Your task to perform on an android device: change text size in settings app Image 0: 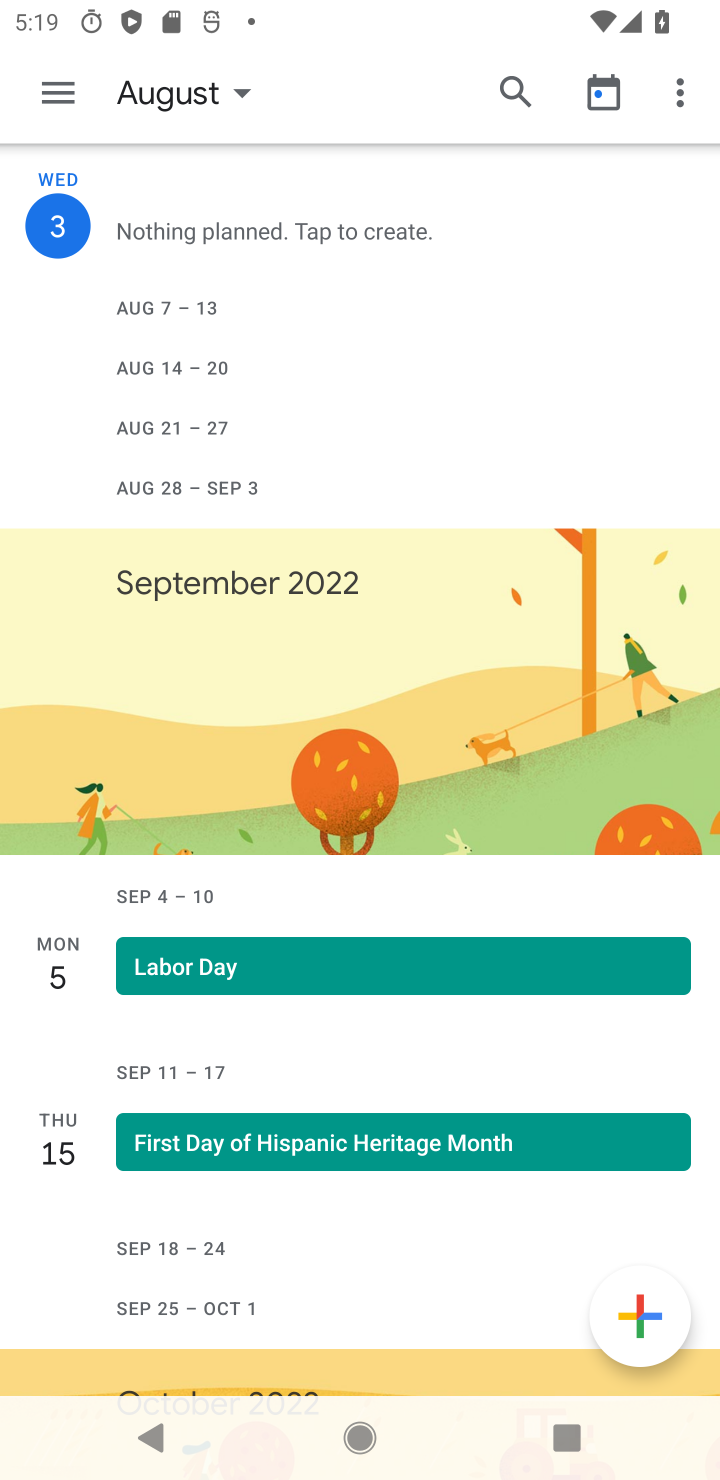
Step 0: press back button
Your task to perform on an android device: change text size in settings app Image 1: 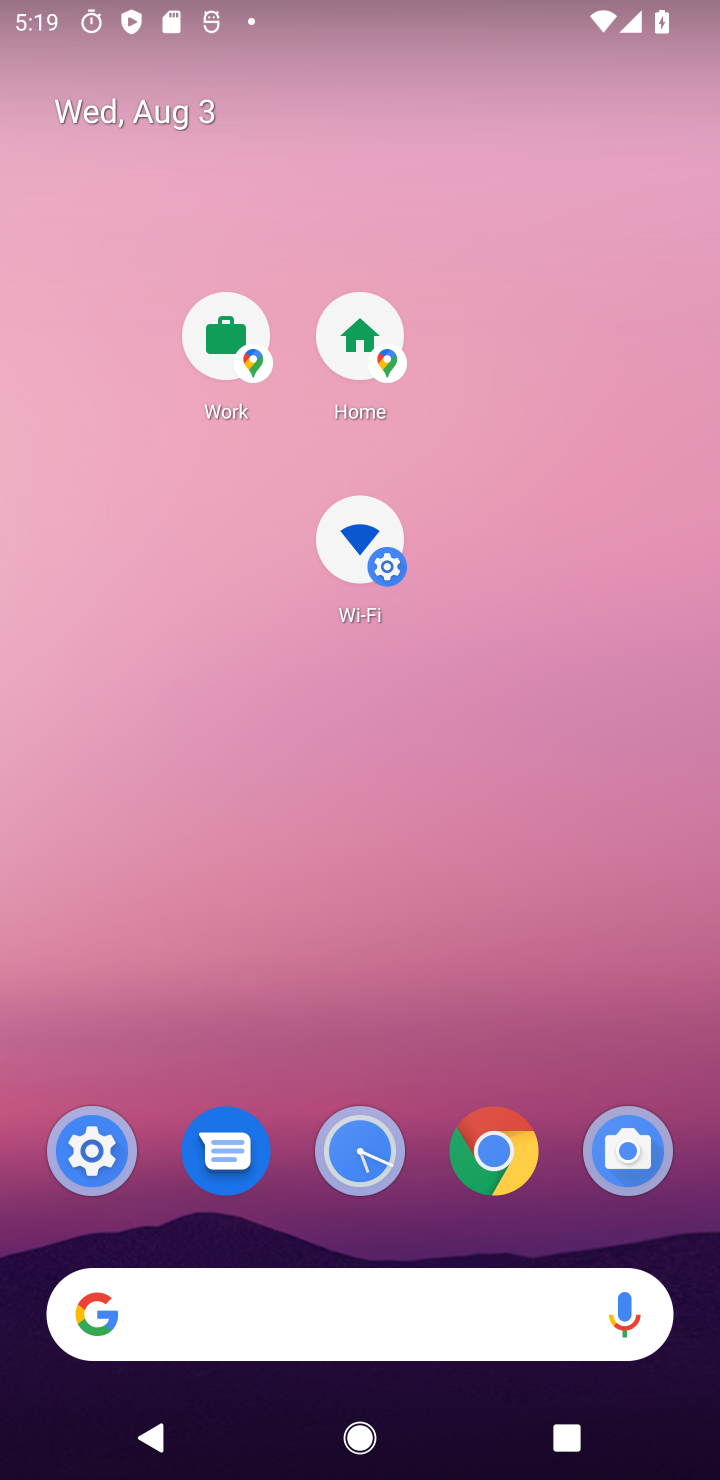
Step 1: drag from (437, 1161) to (250, 378)
Your task to perform on an android device: change text size in settings app Image 2: 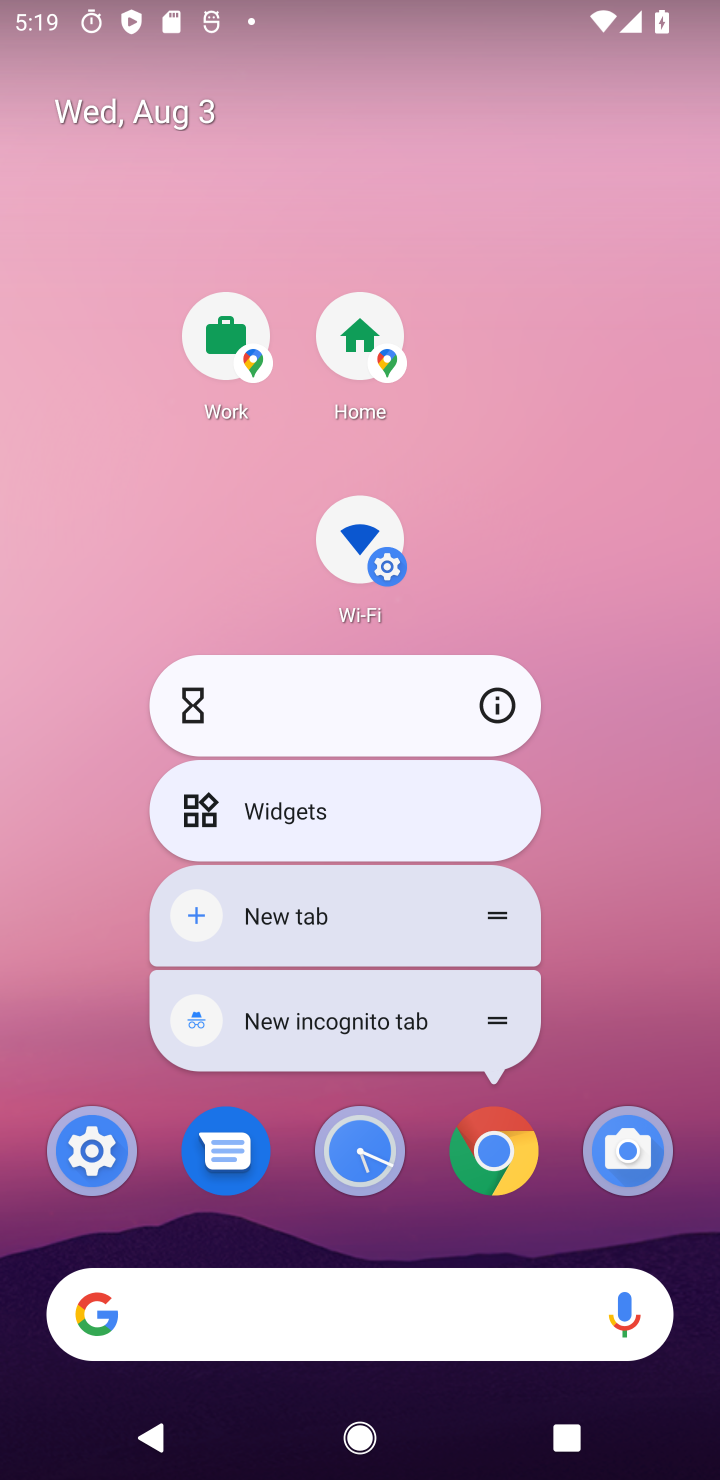
Step 2: click (634, 606)
Your task to perform on an android device: change text size in settings app Image 3: 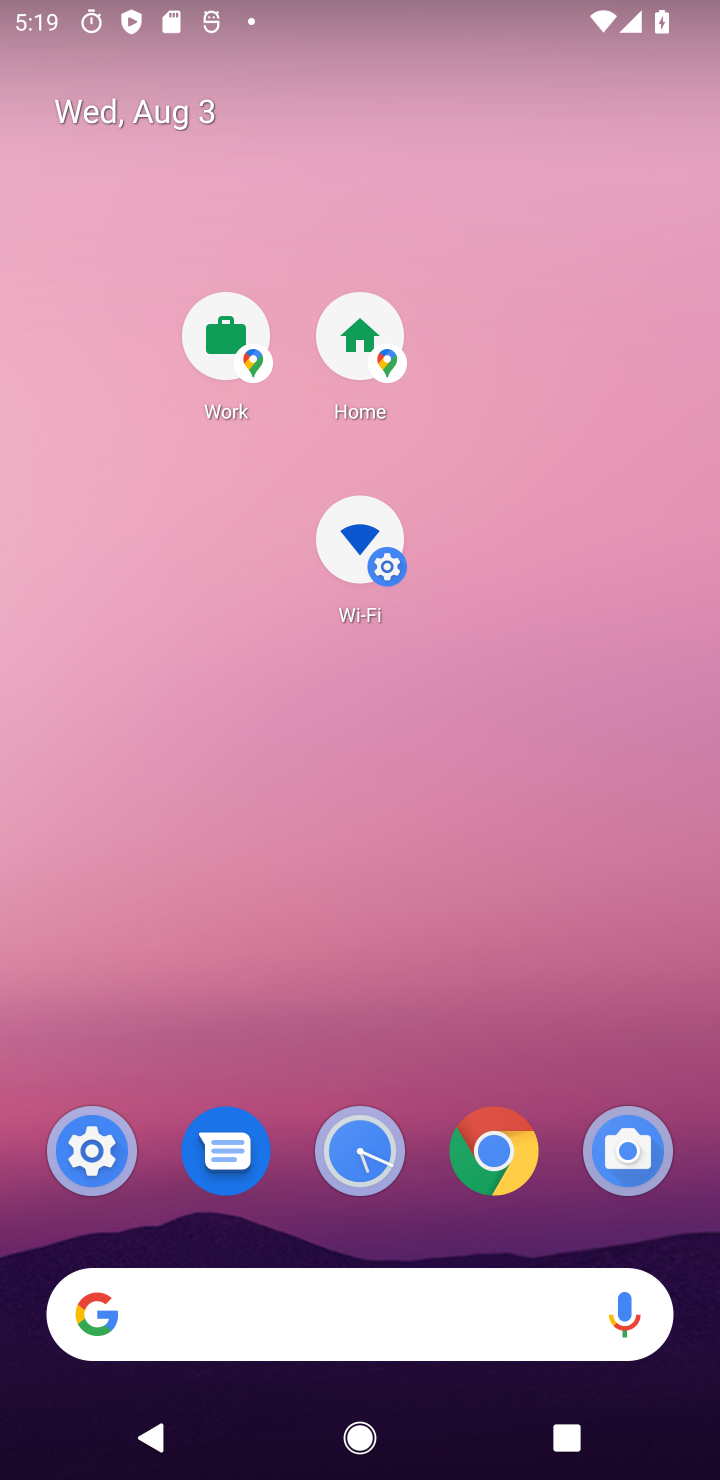
Step 3: drag from (501, 955) to (392, 484)
Your task to perform on an android device: change text size in settings app Image 4: 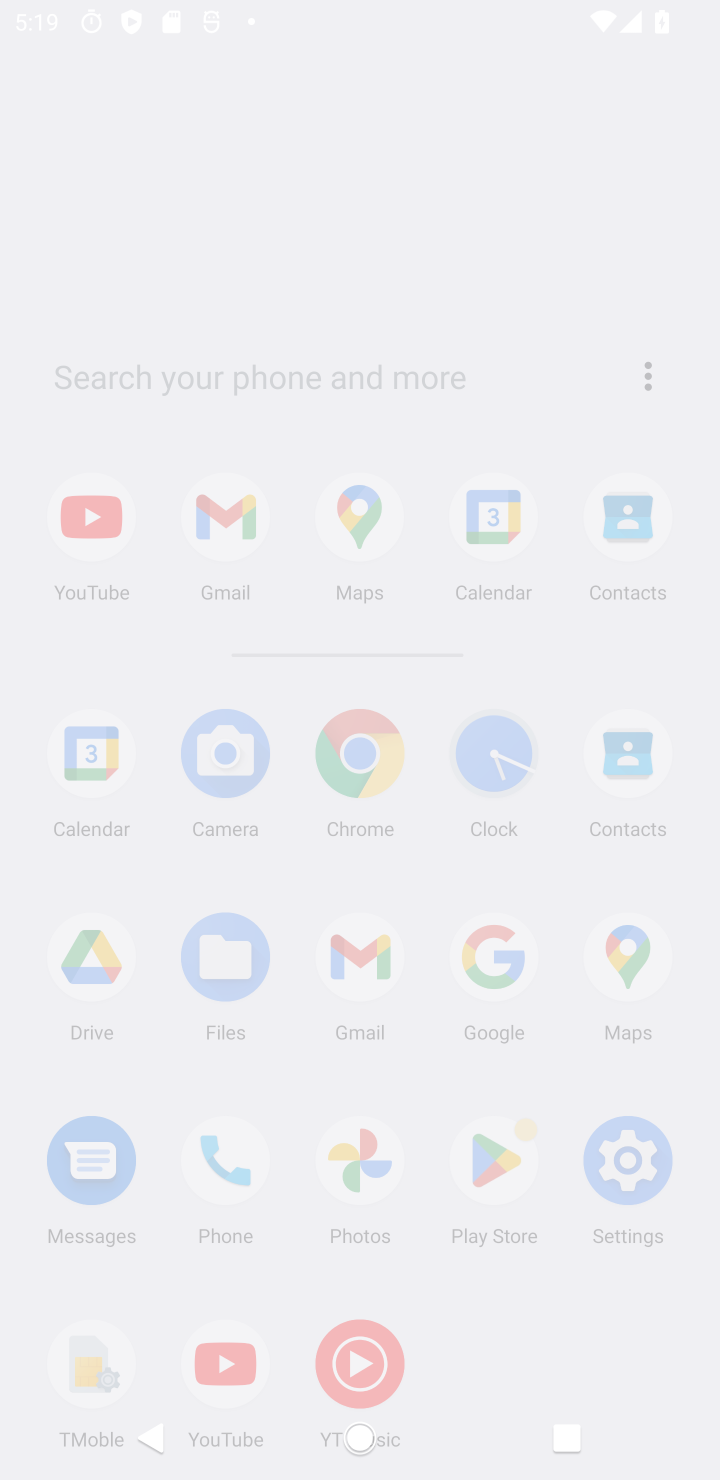
Step 4: drag from (429, 965) to (389, 713)
Your task to perform on an android device: change text size in settings app Image 5: 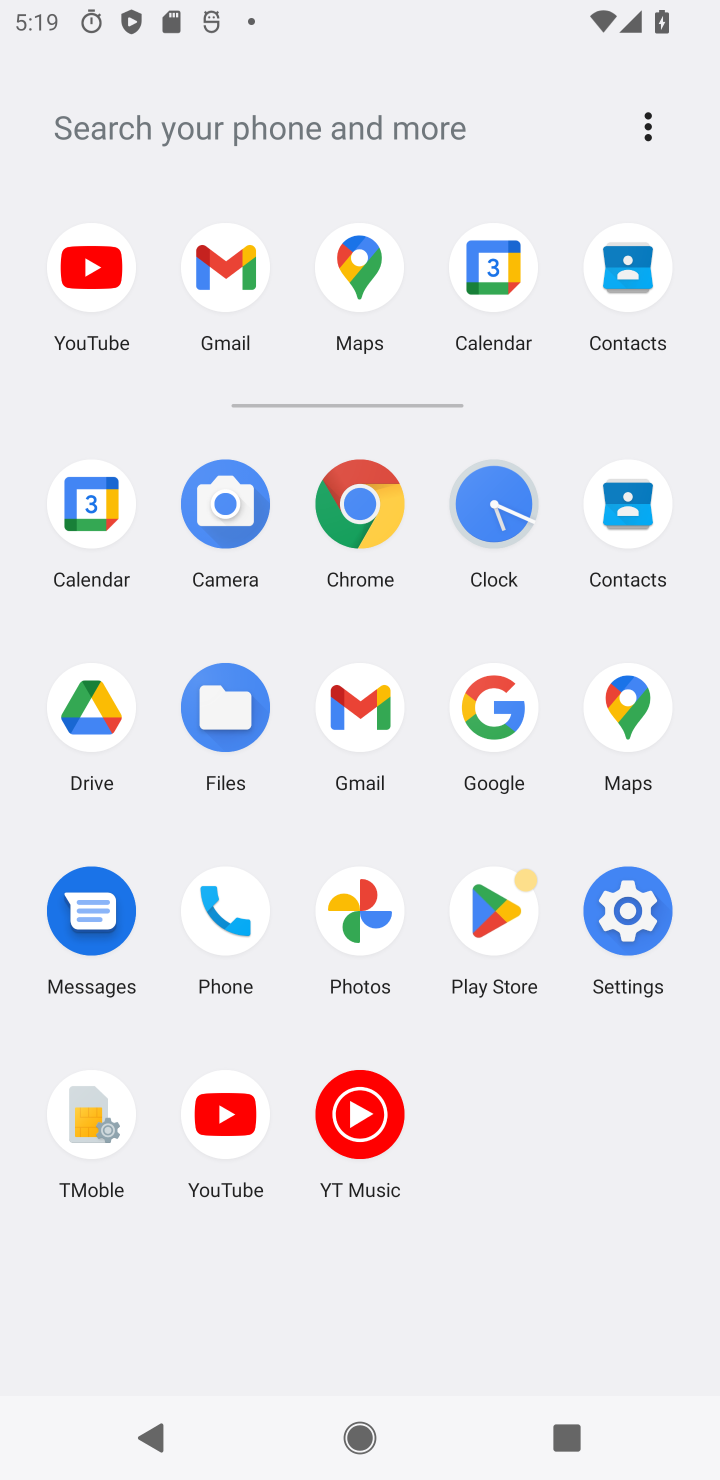
Step 5: click (603, 907)
Your task to perform on an android device: change text size in settings app Image 6: 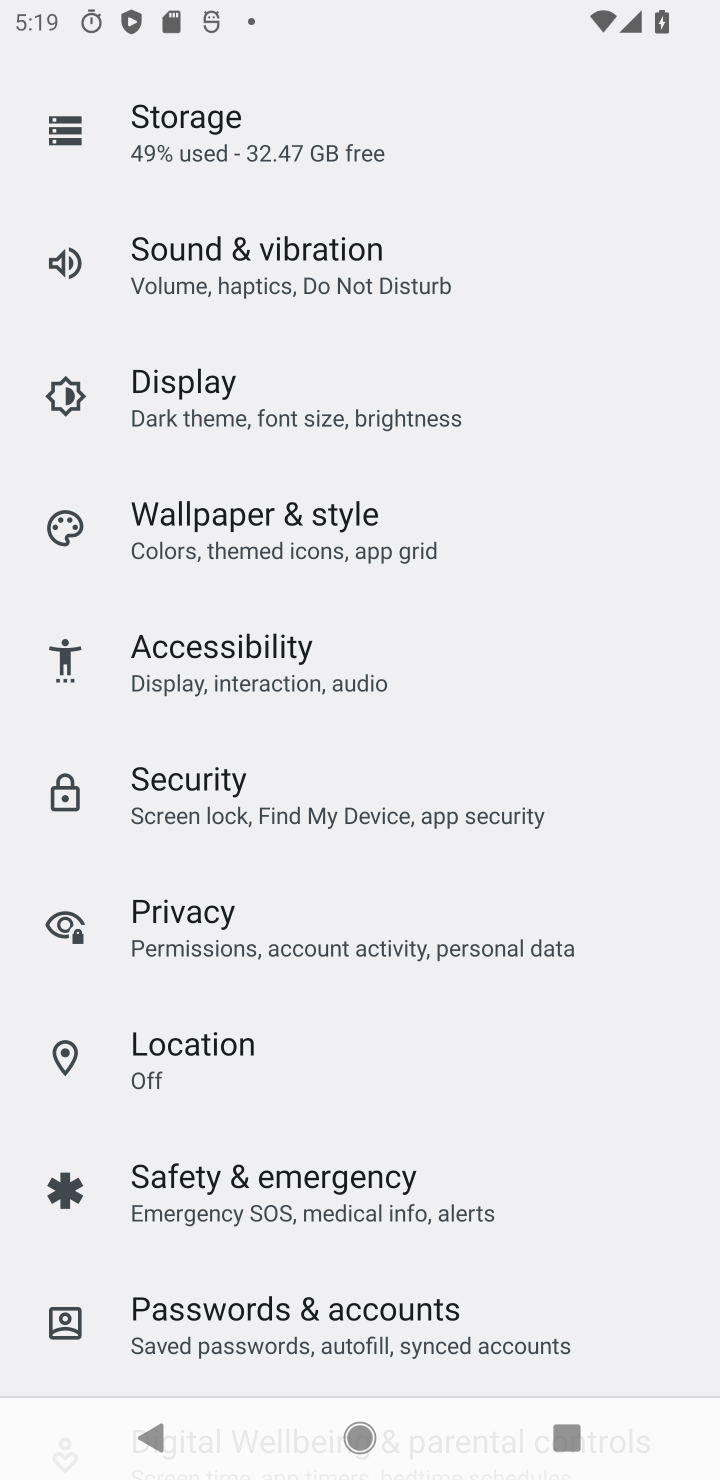
Step 6: click (161, 407)
Your task to perform on an android device: change text size in settings app Image 7: 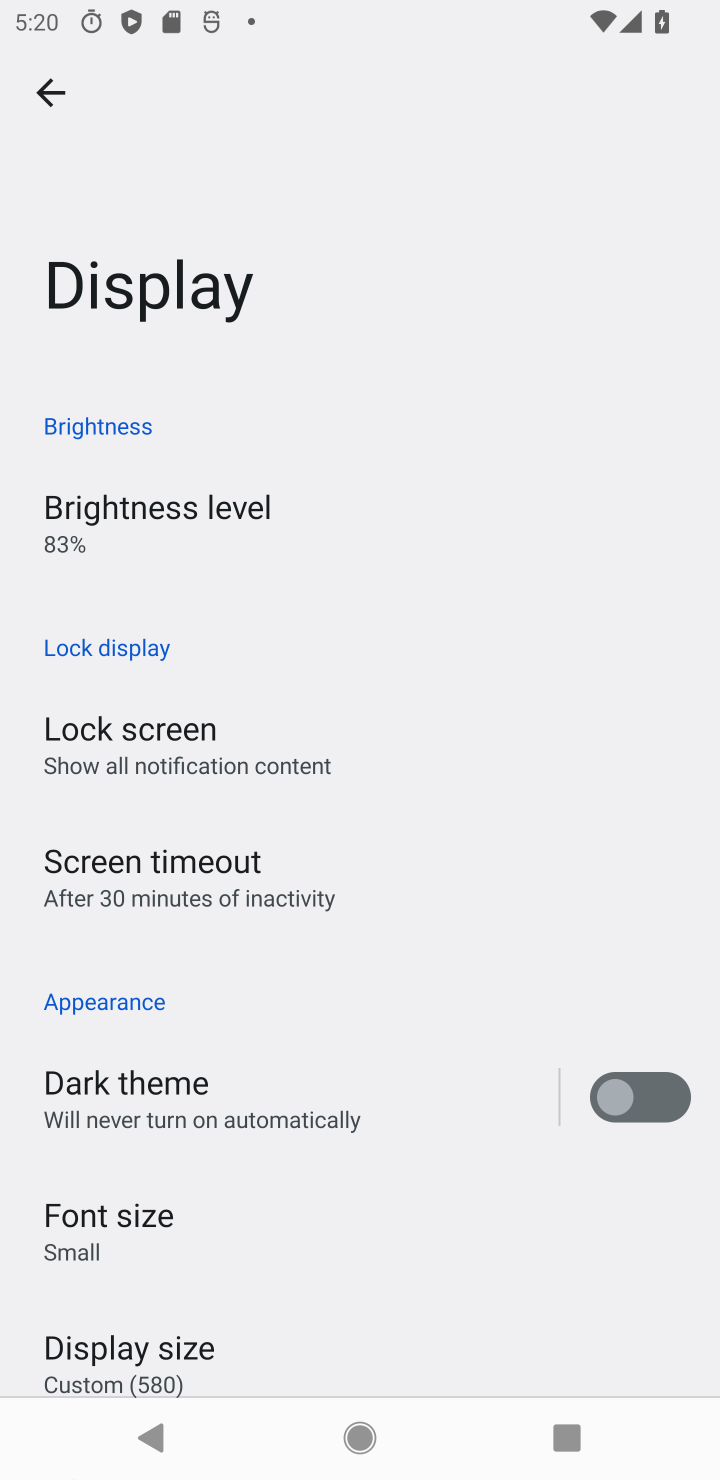
Step 7: drag from (177, 1090) to (47, 263)
Your task to perform on an android device: change text size in settings app Image 8: 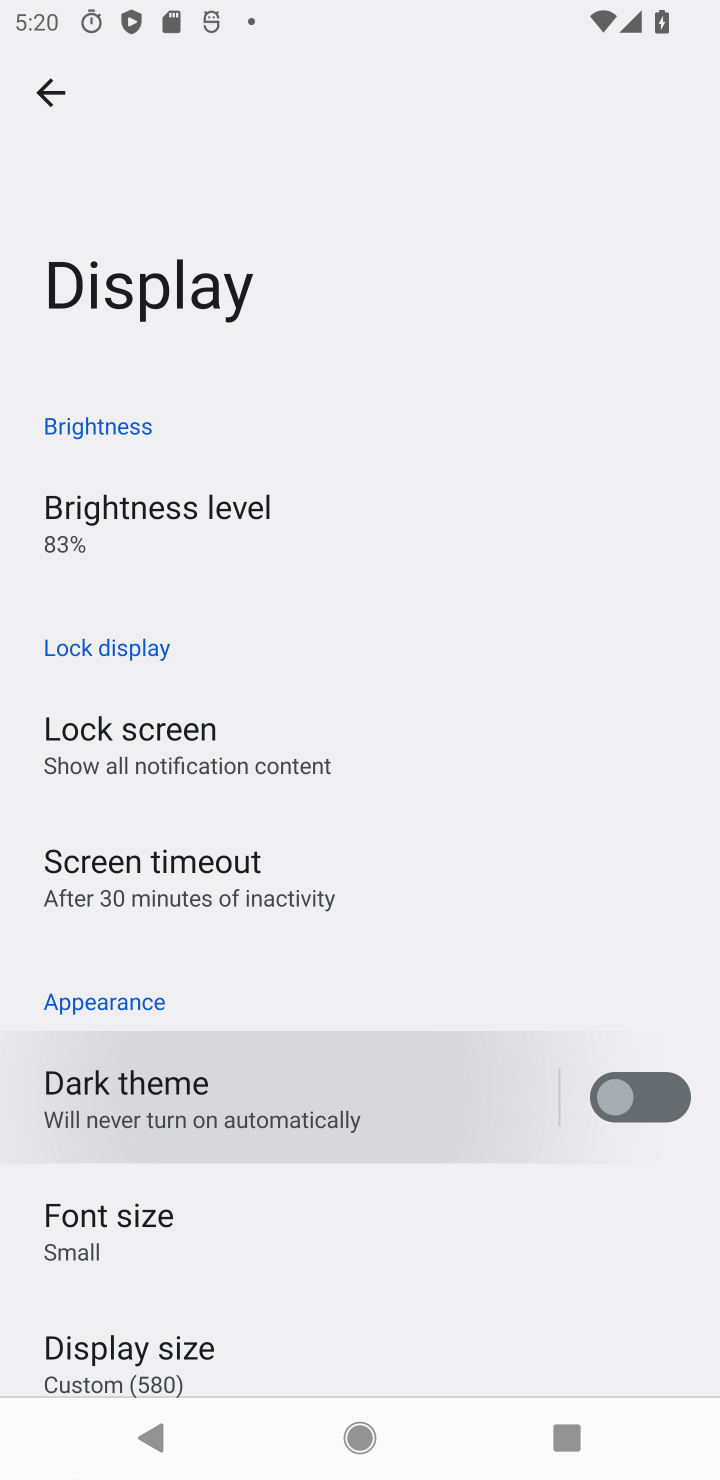
Step 8: drag from (270, 943) to (250, 725)
Your task to perform on an android device: change text size in settings app Image 9: 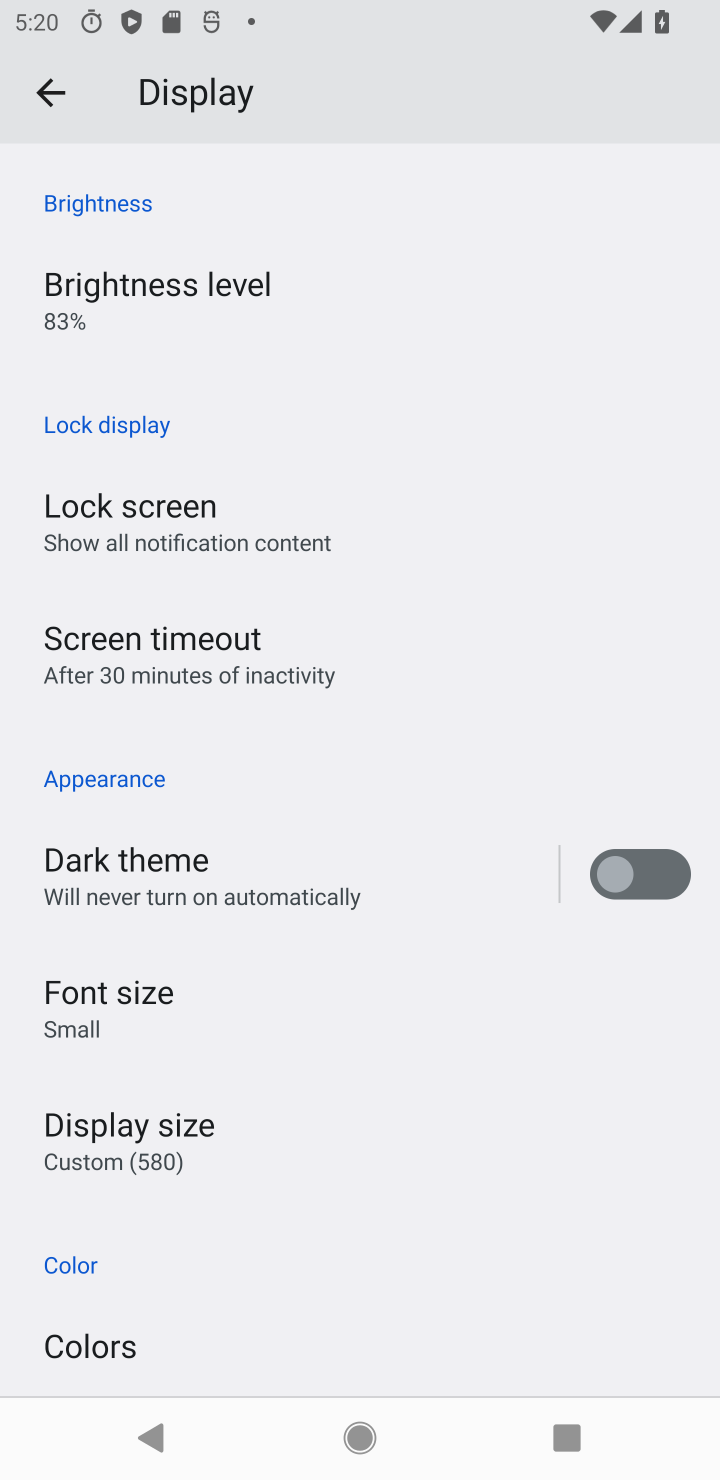
Step 9: click (108, 1001)
Your task to perform on an android device: change text size in settings app Image 10: 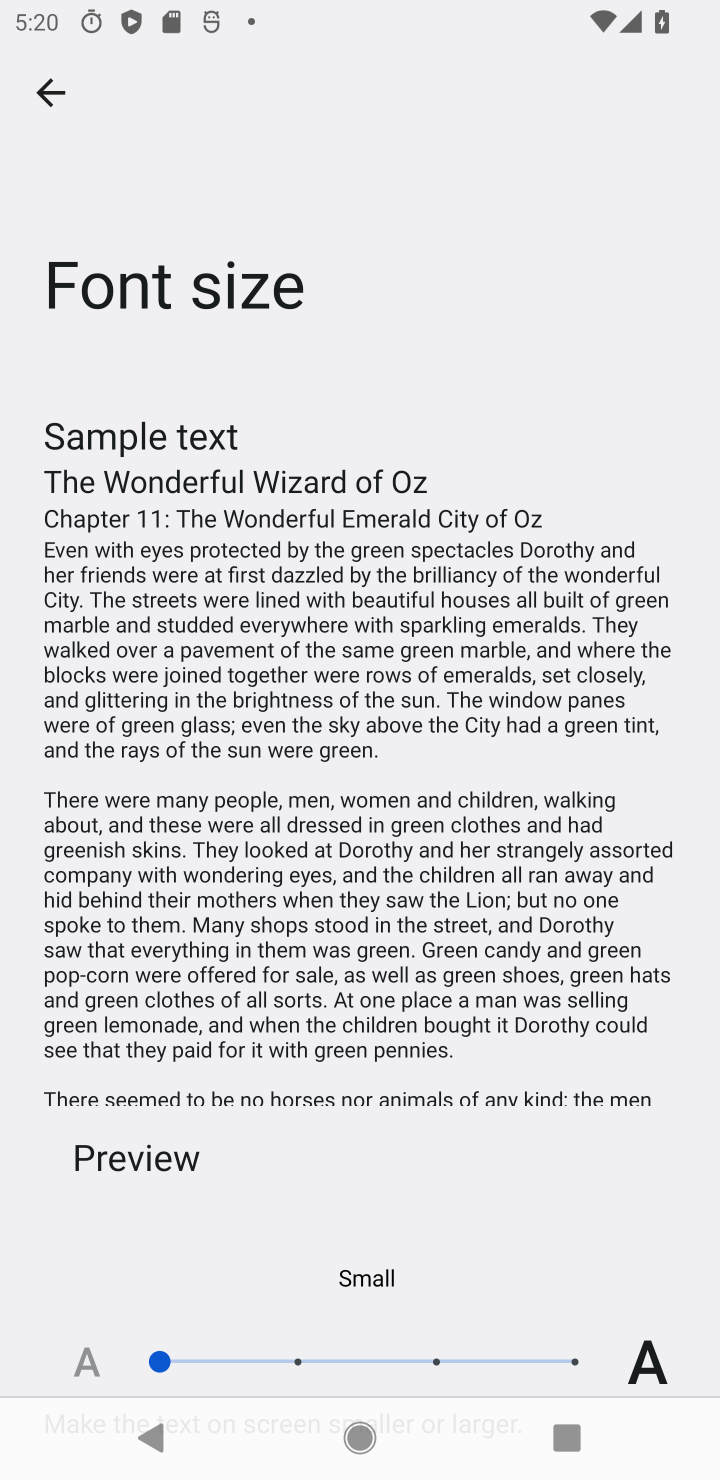
Step 10: click (580, 1364)
Your task to perform on an android device: change text size in settings app Image 11: 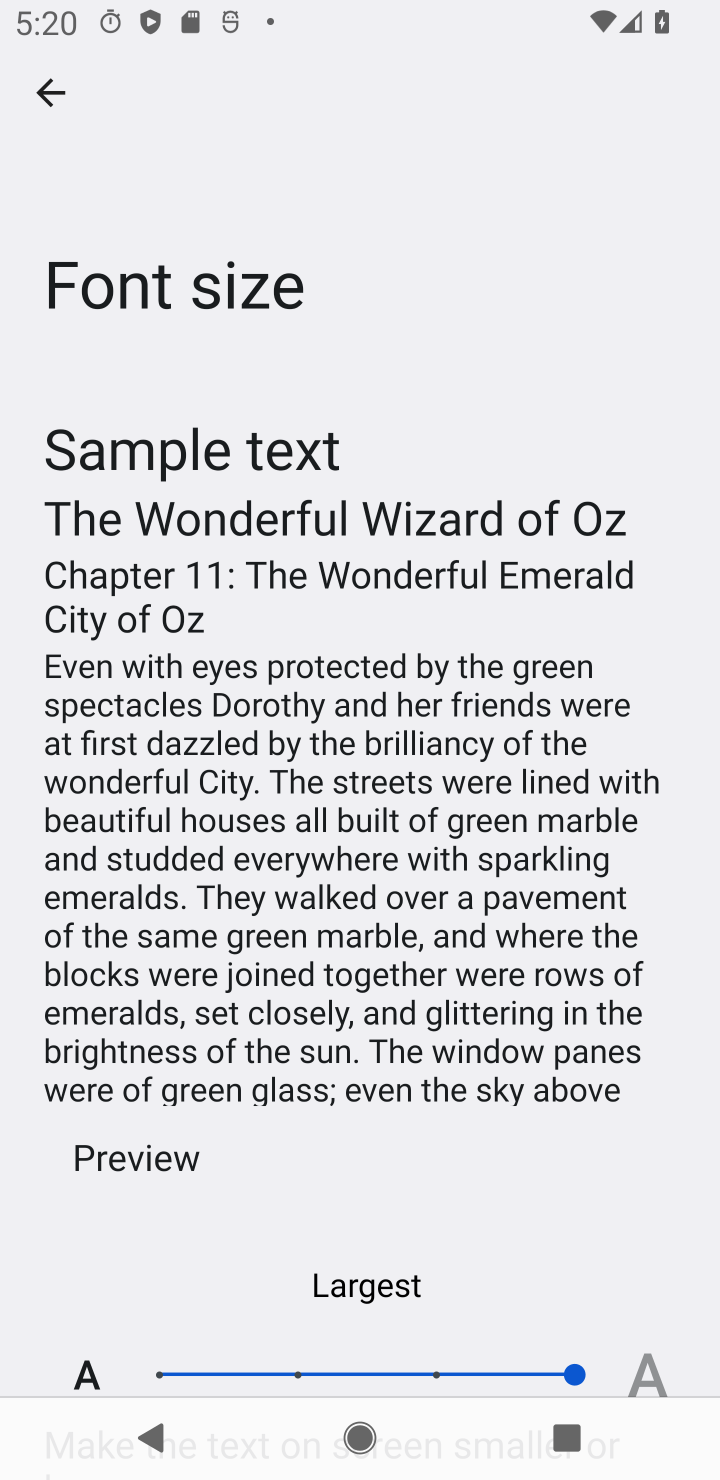
Step 11: task complete